Your task to perform on an android device: Open network settings Image 0: 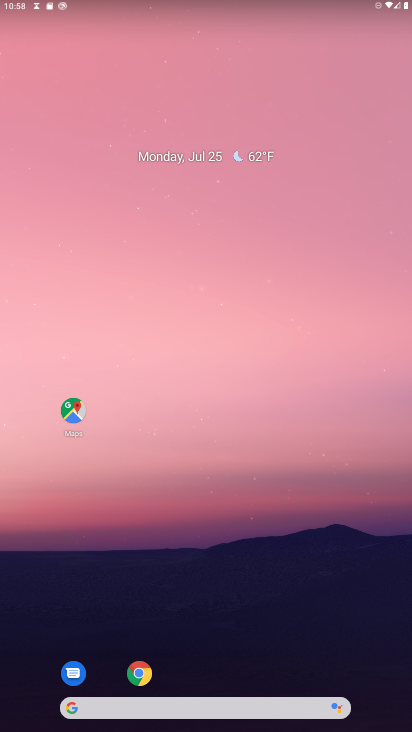
Step 0: press home button
Your task to perform on an android device: Open network settings Image 1: 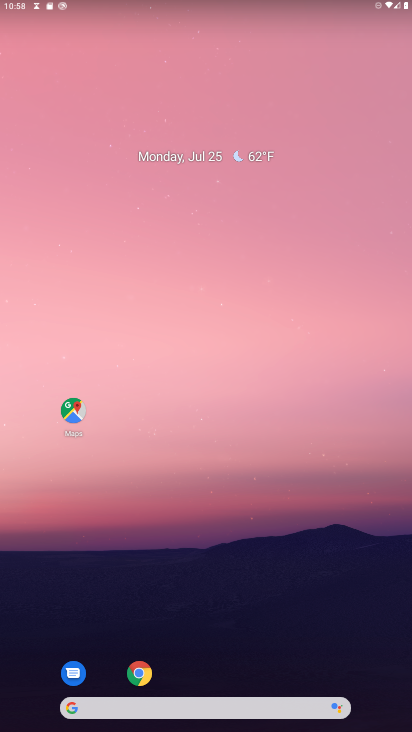
Step 1: drag from (261, 536) to (240, 112)
Your task to perform on an android device: Open network settings Image 2: 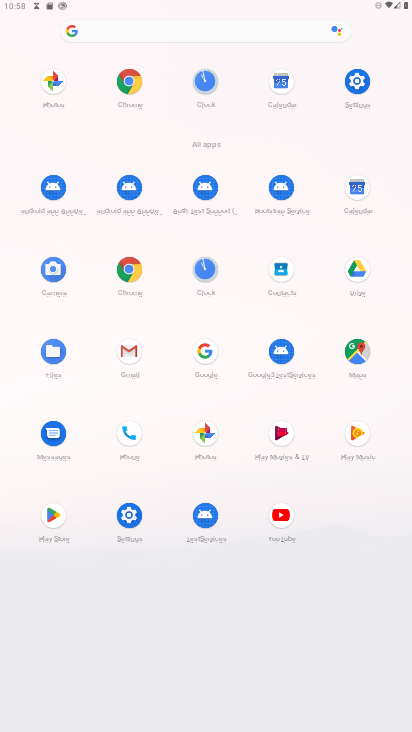
Step 2: click (350, 80)
Your task to perform on an android device: Open network settings Image 3: 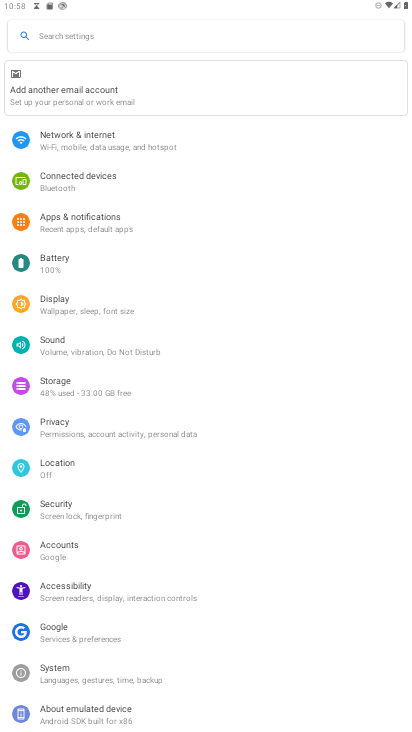
Step 3: click (66, 137)
Your task to perform on an android device: Open network settings Image 4: 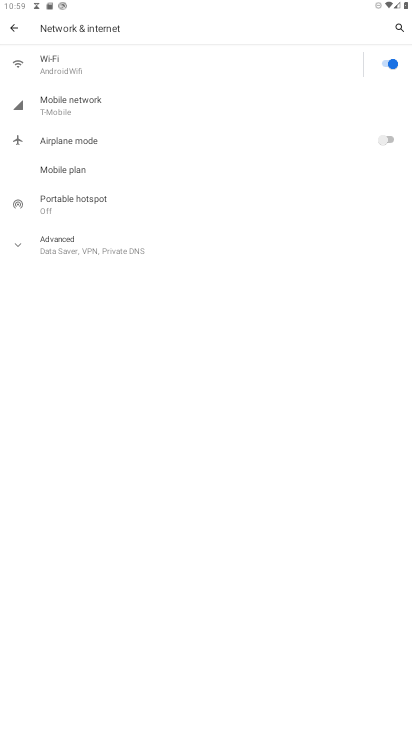
Step 4: task complete